Your task to perform on an android device: Add duracell triple a to the cart on ebay.com Image 0: 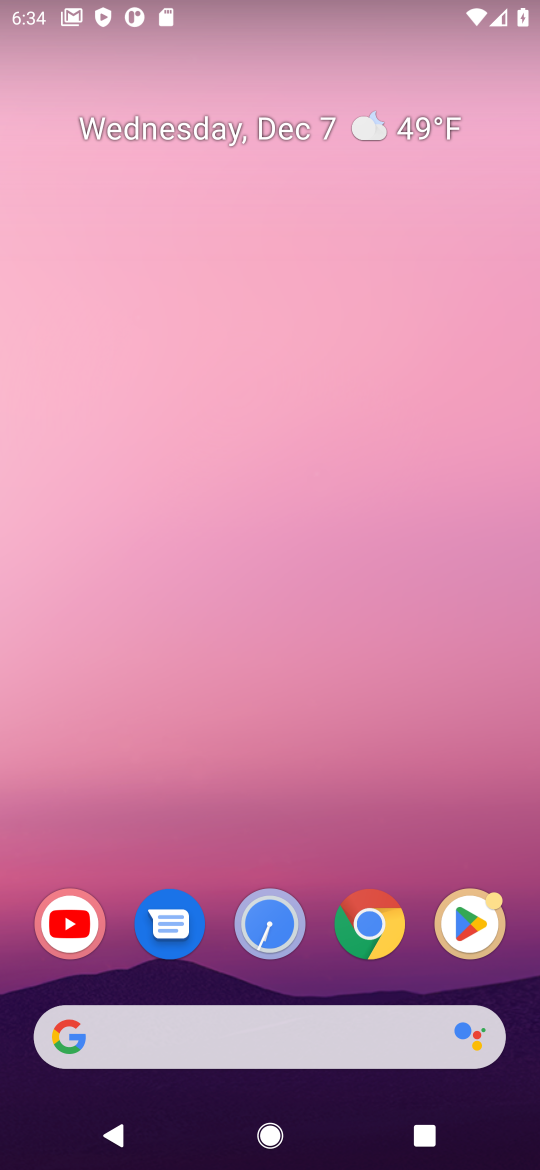
Step 0: press home button
Your task to perform on an android device: Add duracell triple a to the cart on ebay.com Image 1: 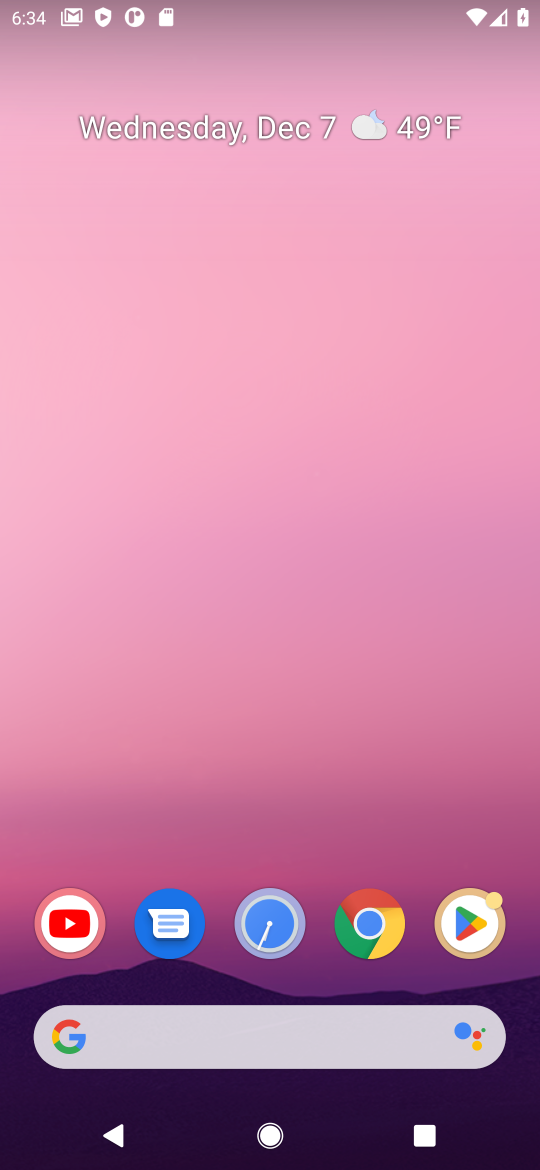
Step 1: drag from (231, 781) to (237, 364)
Your task to perform on an android device: Add duracell triple a to the cart on ebay.com Image 2: 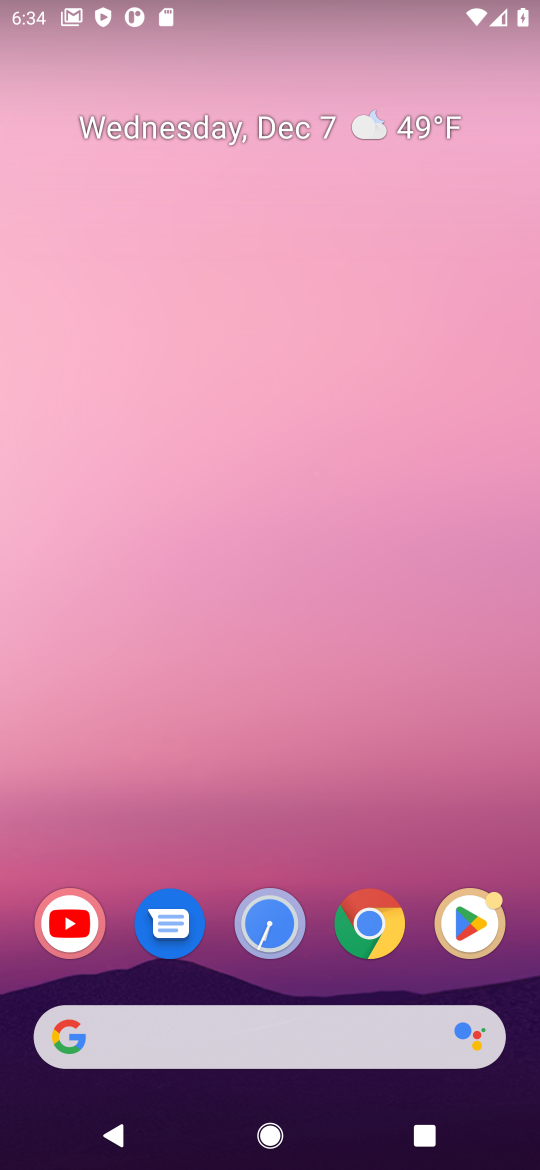
Step 2: drag from (251, 864) to (251, 350)
Your task to perform on an android device: Add duracell triple a to the cart on ebay.com Image 3: 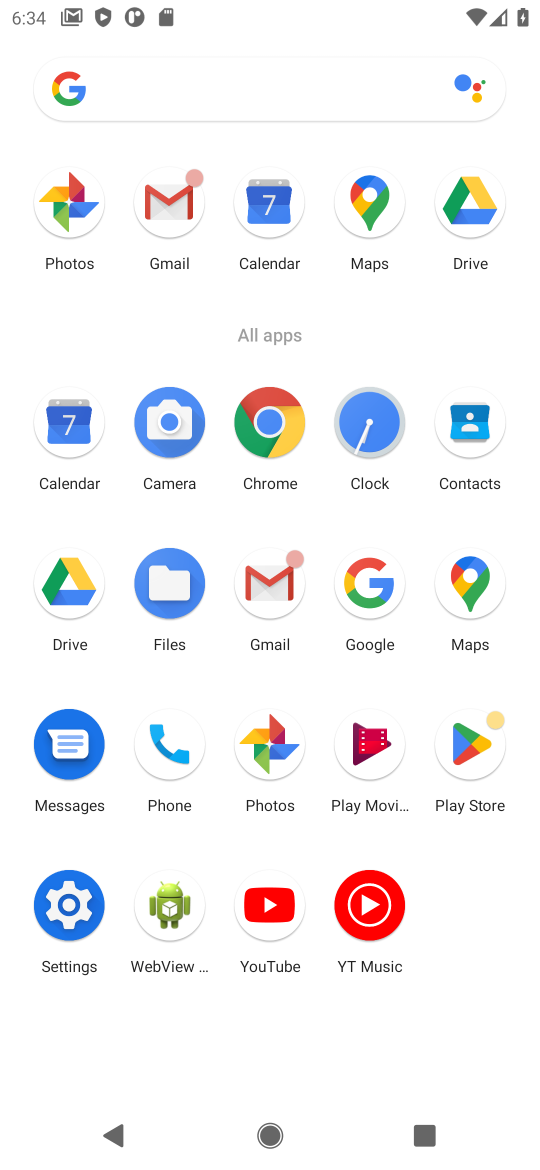
Step 3: click (353, 593)
Your task to perform on an android device: Add duracell triple a to the cart on ebay.com Image 4: 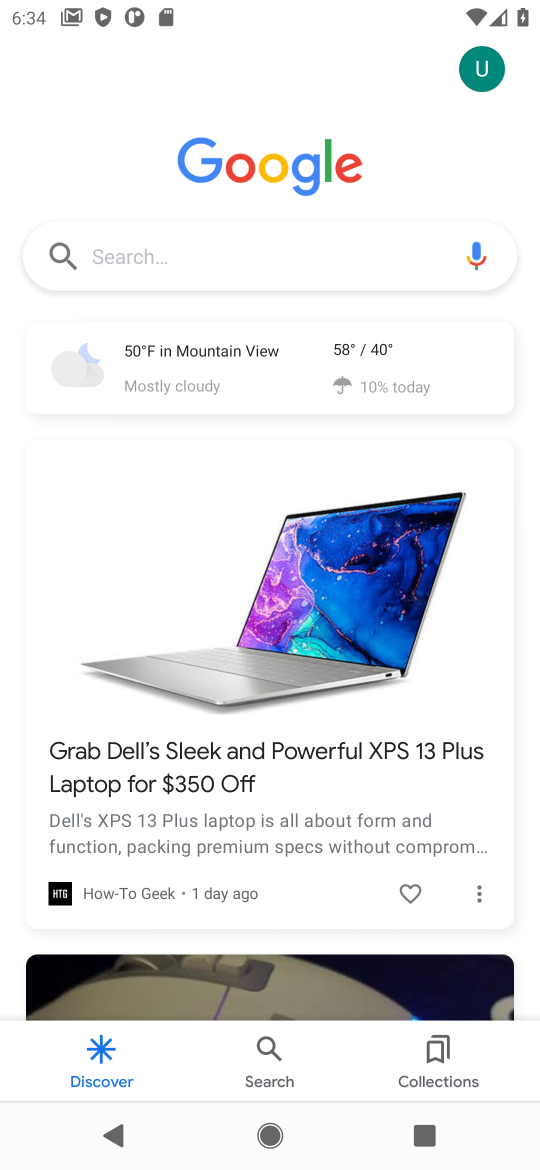
Step 4: click (150, 251)
Your task to perform on an android device: Add duracell triple a to the cart on ebay.com Image 5: 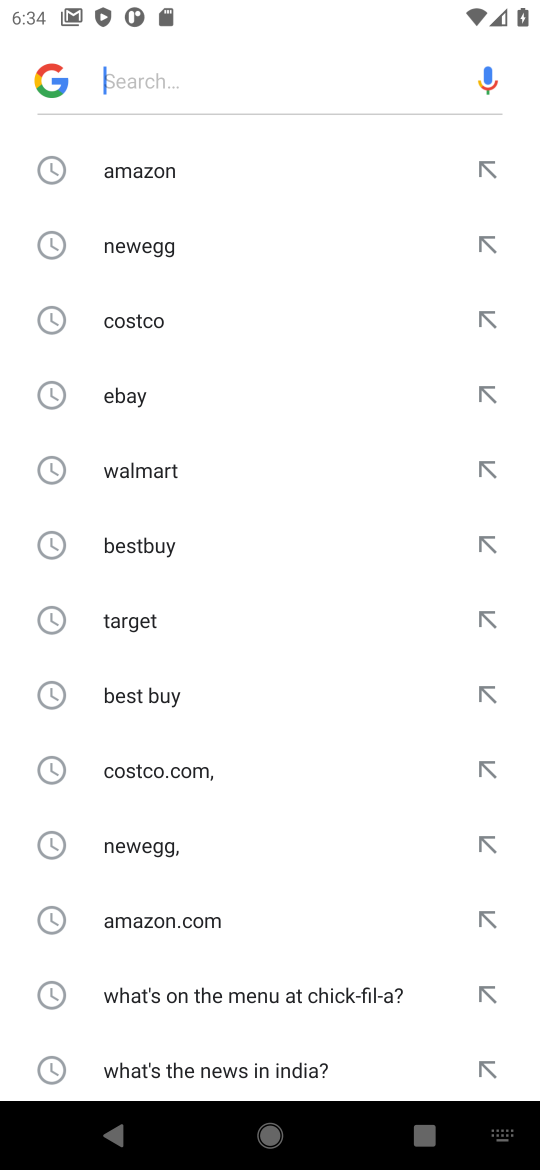
Step 5: click (124, 393)
Your task to perform on an android device: Add duracell triple a to the cart on ebay.com Image 6: 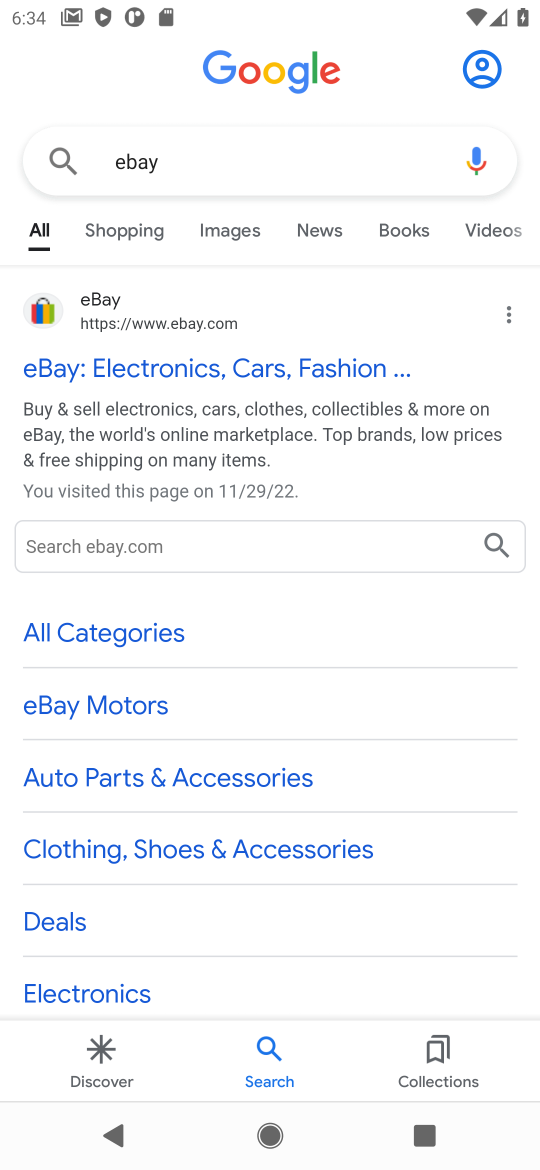
Step 6: click (119, 376)
Your task to perform on an android device: Add duracell triple a to the cart on ebay.com Image 7: 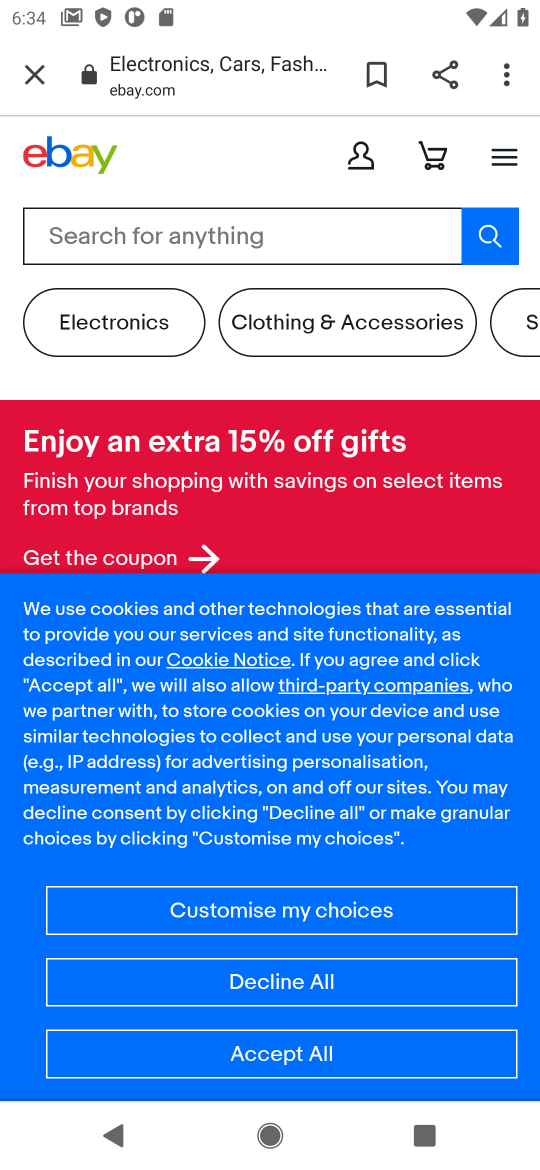
Step 7: click (211, 217)
Your task to perform on an android device: Add duracell triple a to the cart on ebay.com Image 8: 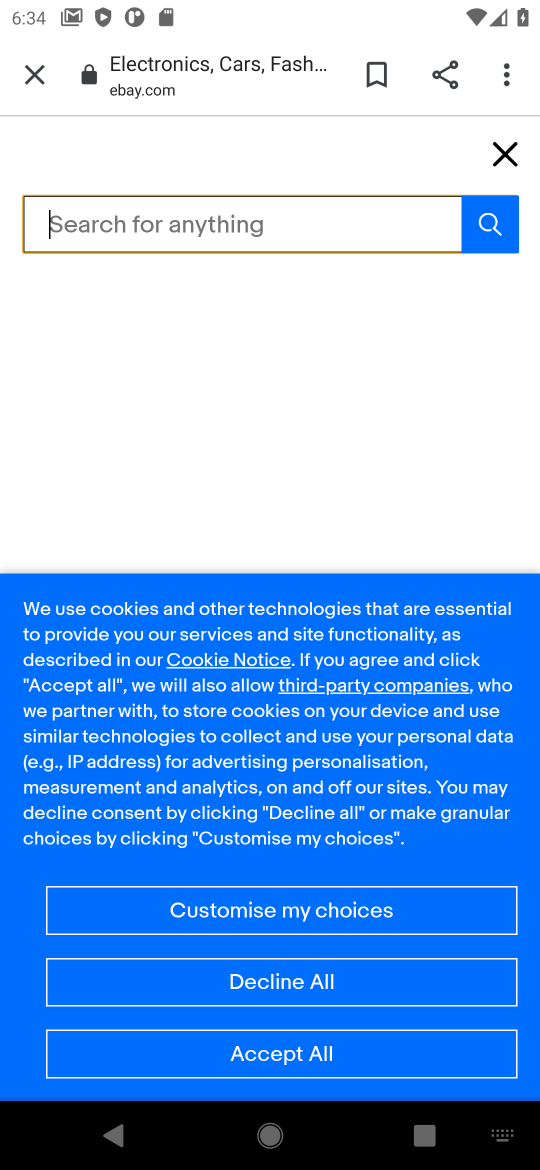
Step 8: type "duracell triple a"
Your task to perform on an android device: Add duracell triple a to the cart on ebay.com Image 9: 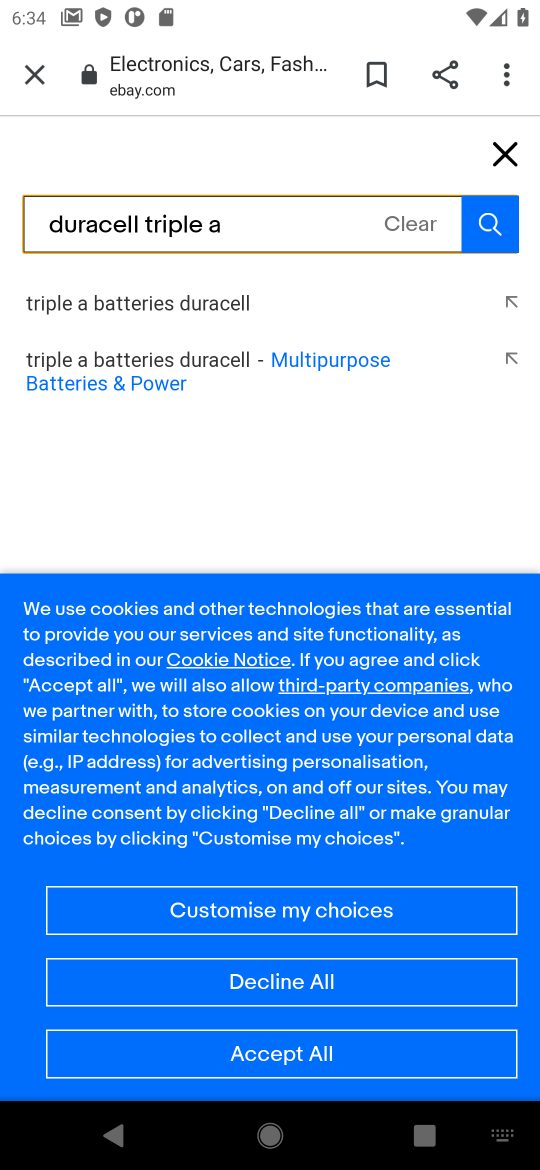
Step 9: click (502, 228)
Your task to perform on an android device: Add duracell triple a to the cart on ebay.com Image 10: 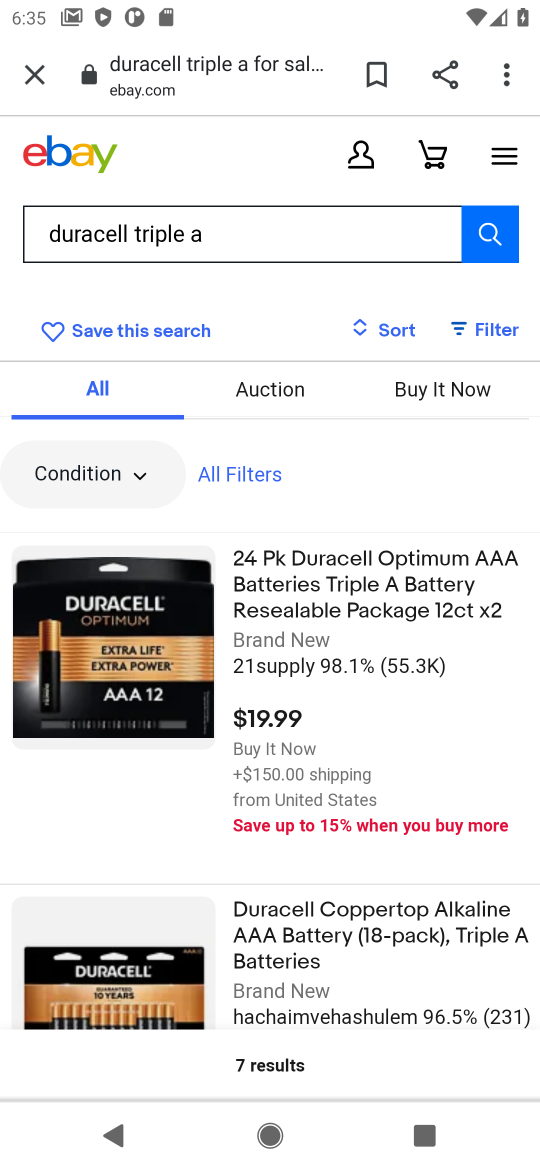
Step 10: click (350, 635)
Your task to perform on an android device: Add duracell triple a to the cart on ebay.com Image 11: 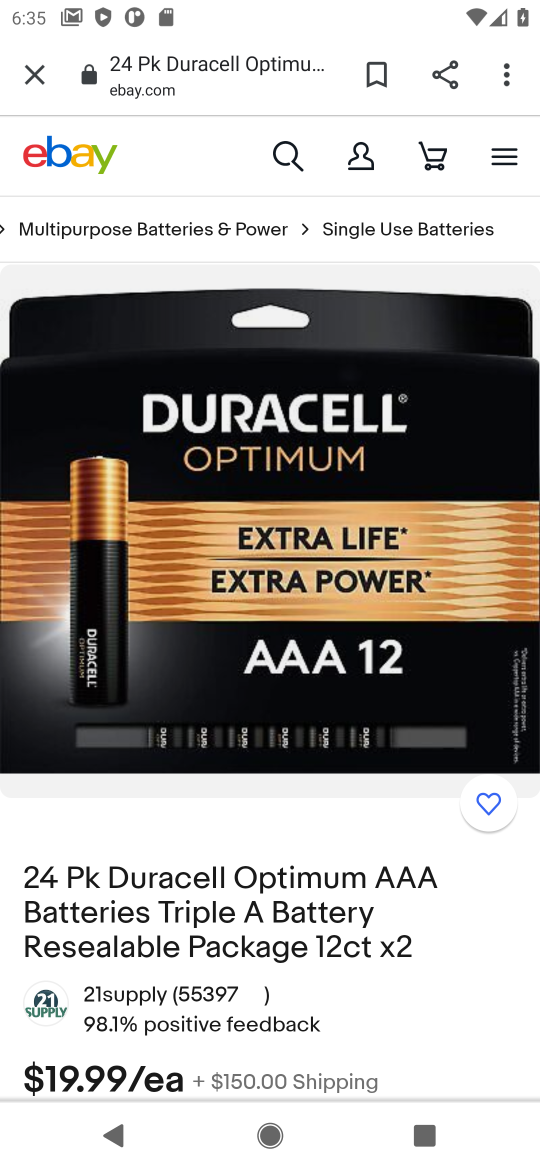
Step 11: drag from (280, 992) to (252, 328)
Your task to perform on an android device: Add duracell triple a to the cart on ebay.com Image 12: 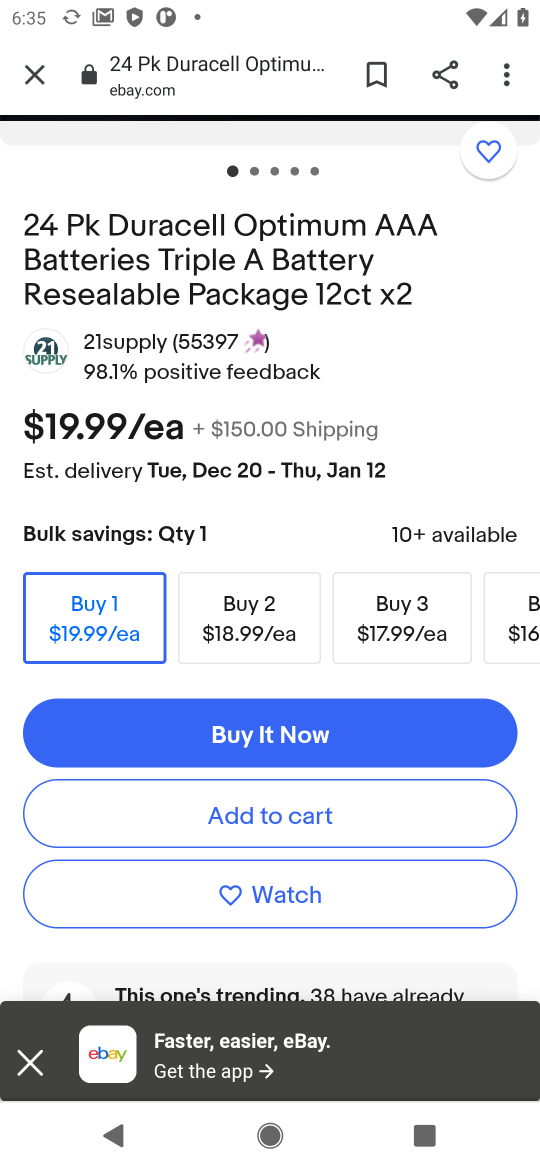
Step 12: click (251, 825)
Your task to perform on an android device: Add duracell triple a to the cart on ebay.com Image 13: 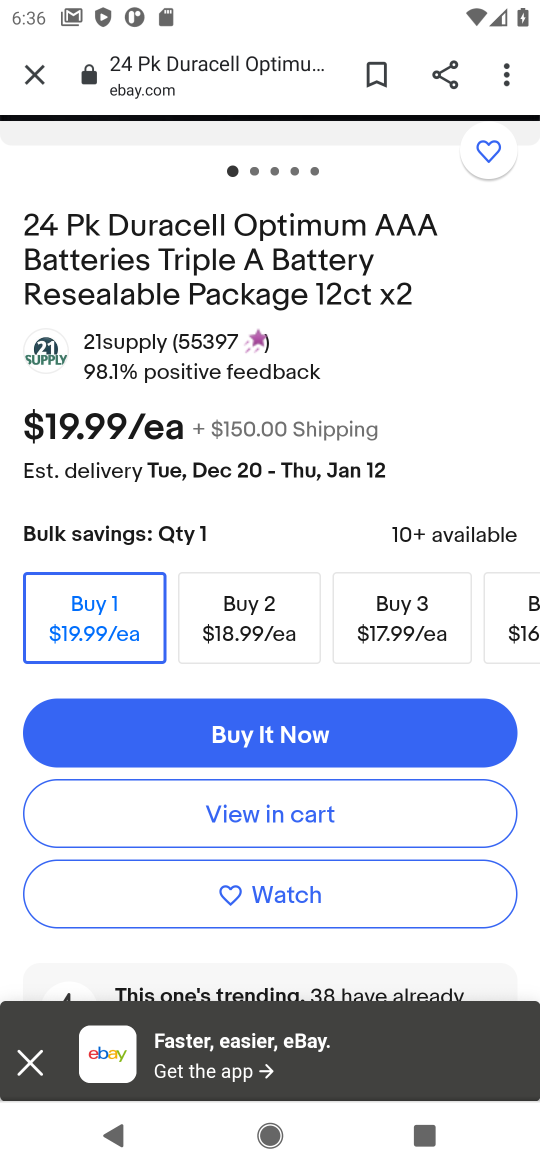
Step 13: task complete